Your task to perform on an android device: turn off improve location accuracy Image 0: 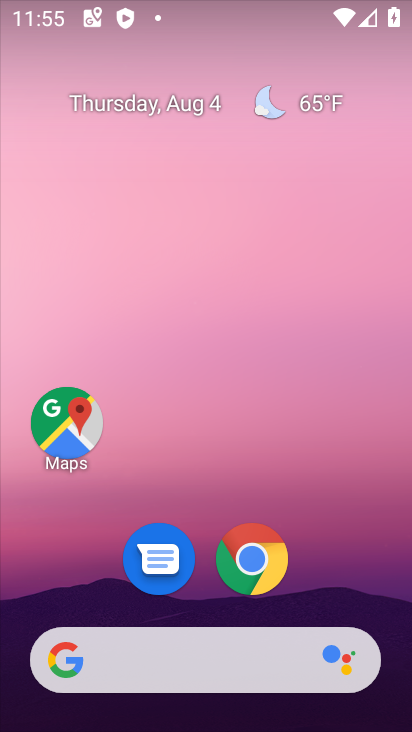
Step 0: drag from (286, 276) to (295, 58)
Your task to perform on an android device: turn off improve location accuracy Image 1: 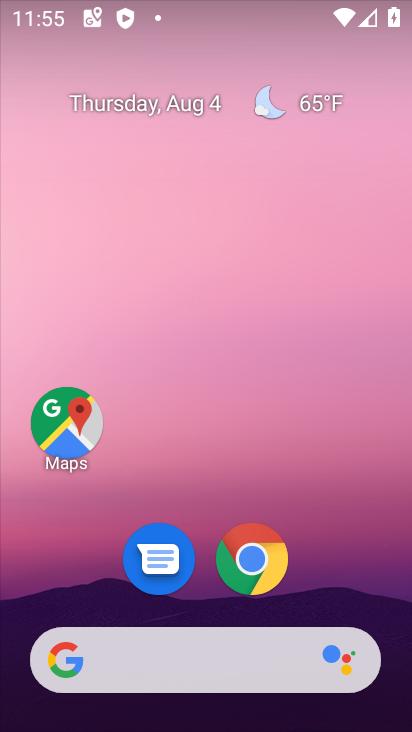
Step 1: drag from (210, 730) to (230, 14)
Your task to perform on an android device: turn off improve location accuracy Image 2: 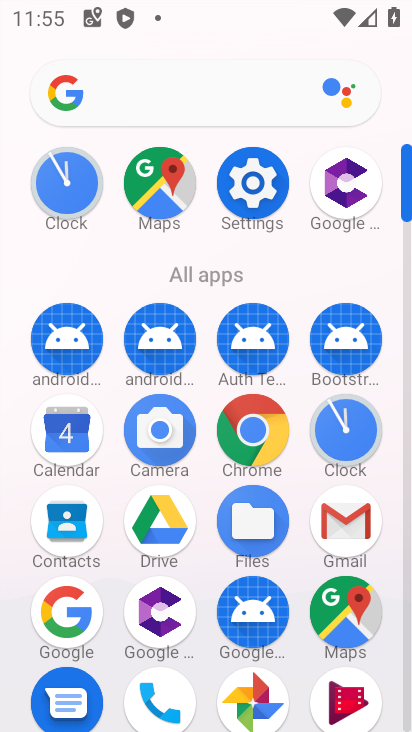
Step 2: click (243, 221)
Your task to perform on an android device: turn off improve location accuracy Image 3: 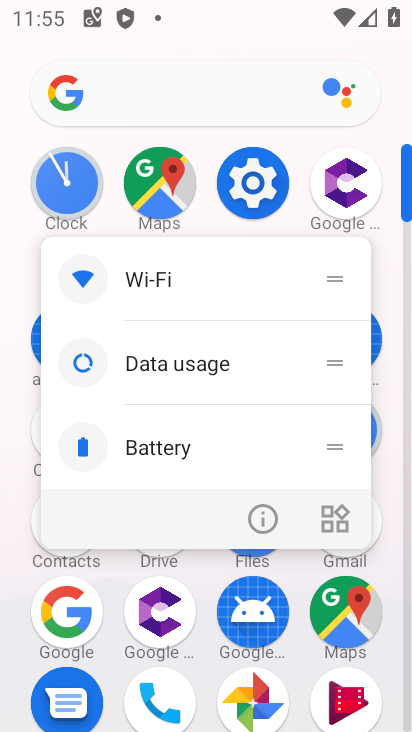
Step 3: click (243, 199)
Your task to perform on an android device: turn off improve location accuracy Image 4: 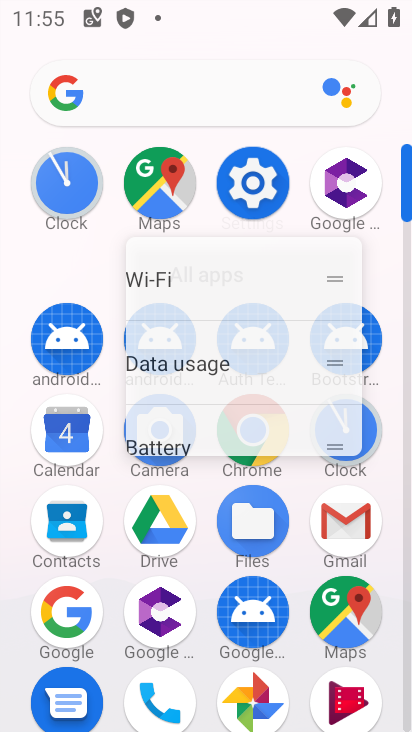
Step 4: click (243, 199)
Your task to perform on an android device: turn off improve location accuracy Image 5: 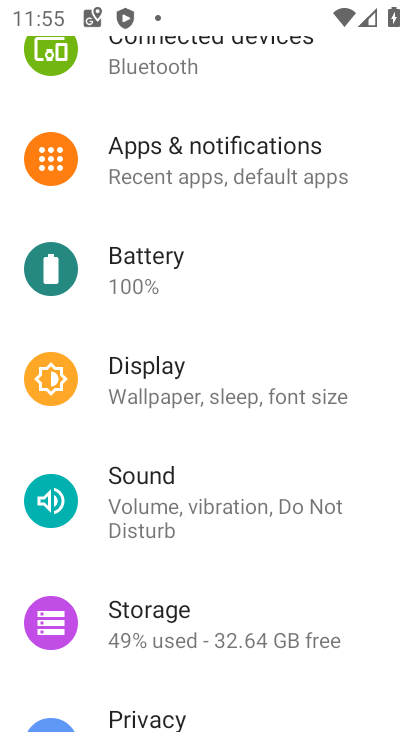
Step 5: drag from (238, 613) to (176, 31)
Your task to perform on an android device: turn off improve location accuracy Image 6: 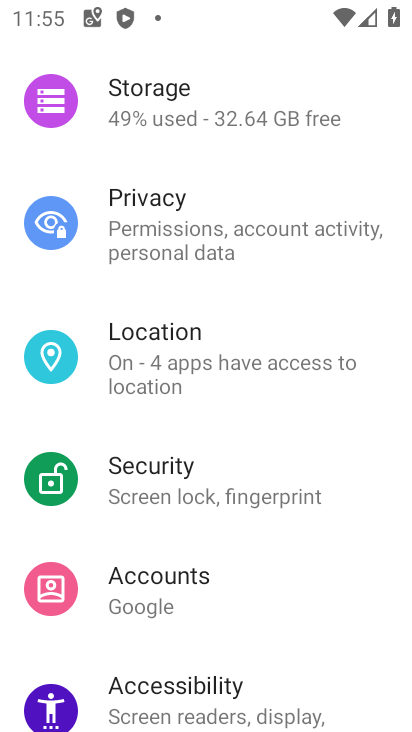
Step 6: click (189, 336)
Your task to perform on an android device: turn off improve location accuracy Image 7: 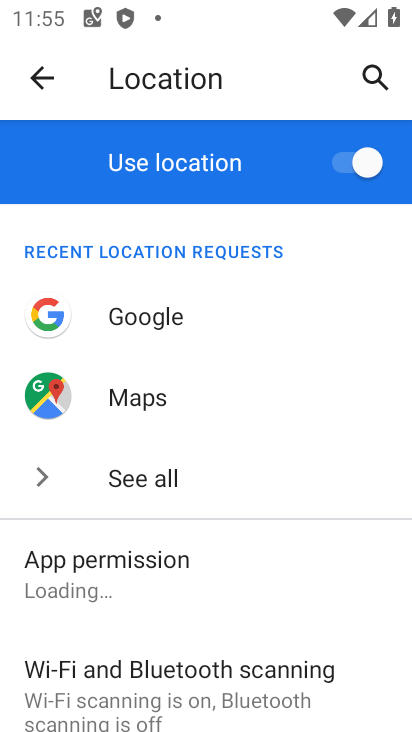
Step 7: drag from (146, 522) to (243, 30)
Your task to perform on an android device: turn off improve location accuracy Image 8: 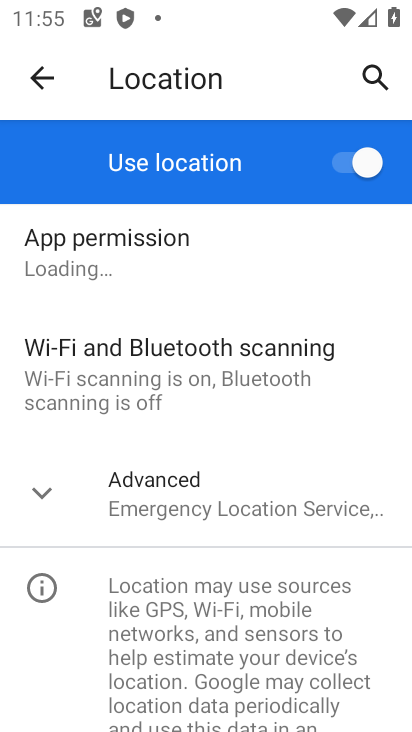
Step 8: click (194, 522)
Your task to perform on an android device: turn off improve location accuracy Image 9: 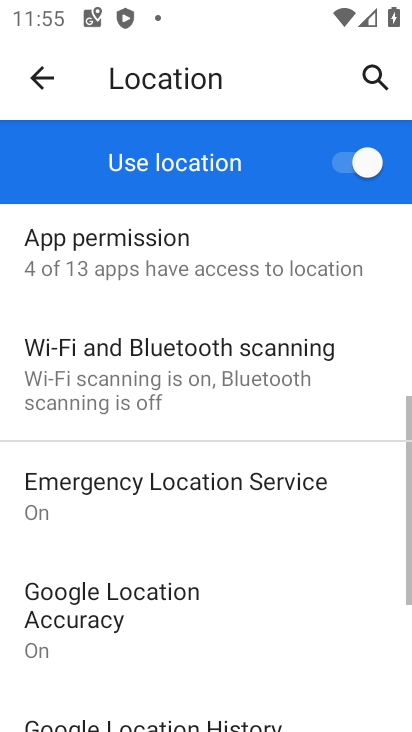
Step 9: click (172, 613)
Your task to perform on an android device: turn off improve location accuracy Image 10: 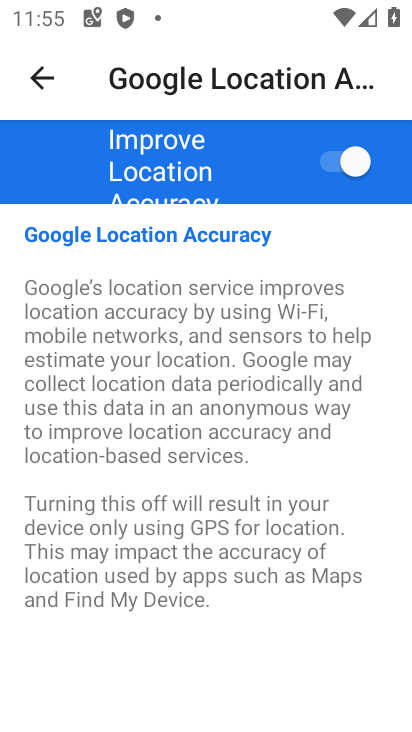
Step 10: click (358, 154)
Your task to perform on an android device: turn off improve location accuracy Image 11: 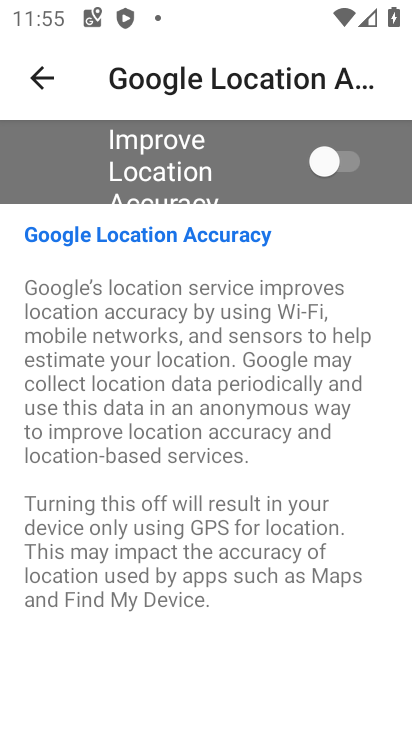
Step 11: task complete